Your task to perform on an android device: toggle wifi Image 0: 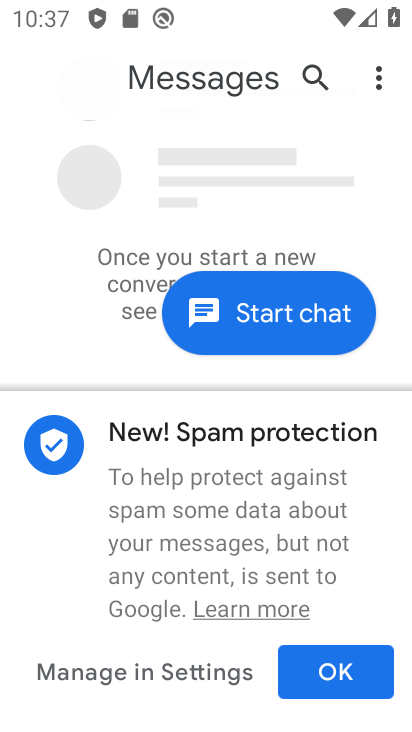
Step 0: press home button
Your task to perform on an android device: toggle wifi Image 1: 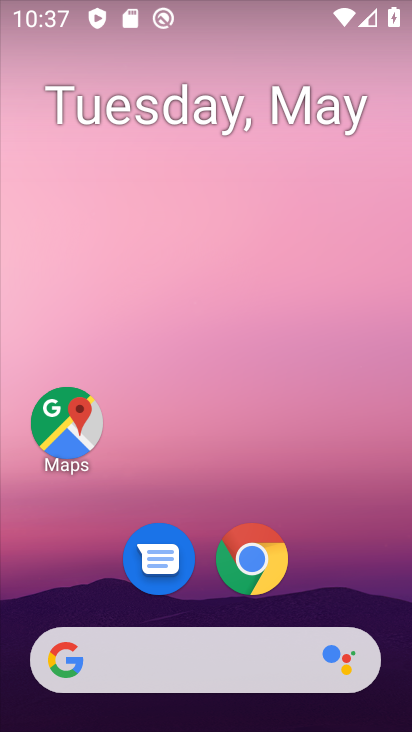
Step 1: drag from (358, 565) to (340, 205)
Your task to perform on an android device: toggle wifi Image 2: 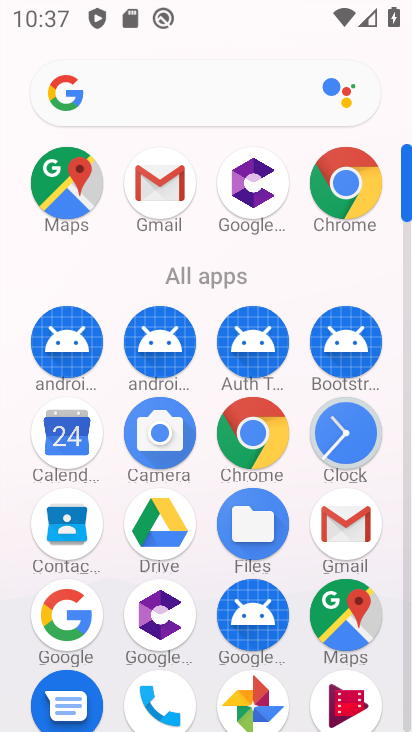
Step 2: drag from (126, 630) to (192, 290)
Your task to perform on an android device: toggle wifi Image 3: 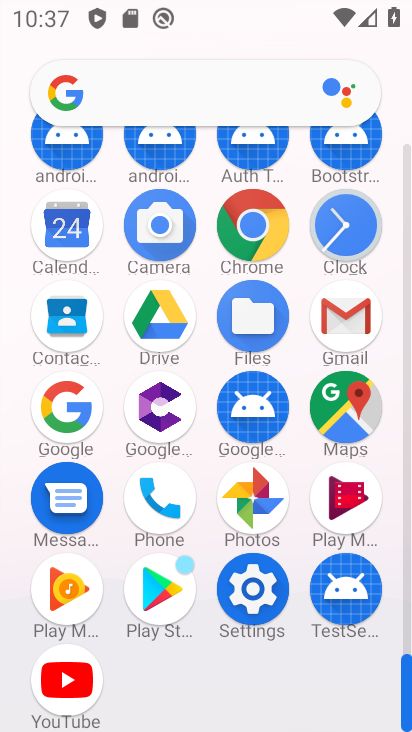
Step 3: click (250, 593)
Your task to perform on an android device: toggle wifi Image 4: 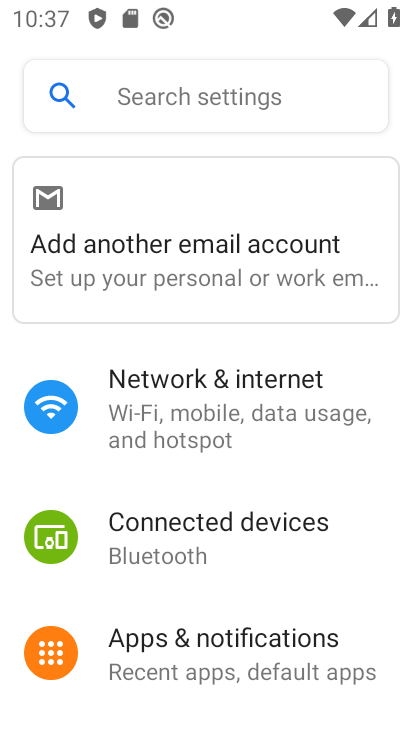
Step 4: click (207, 408)
Your task to perform on an android device: toggle wifi Image 5: 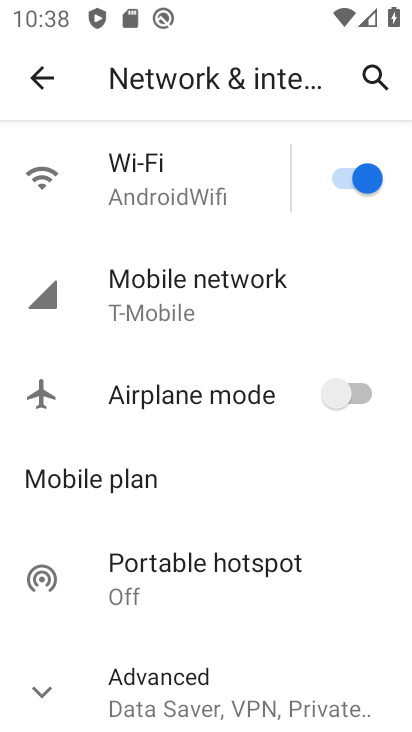
Step 5: click (186, 190)
Your task to perform on an android device: toggle wifi Image 6: 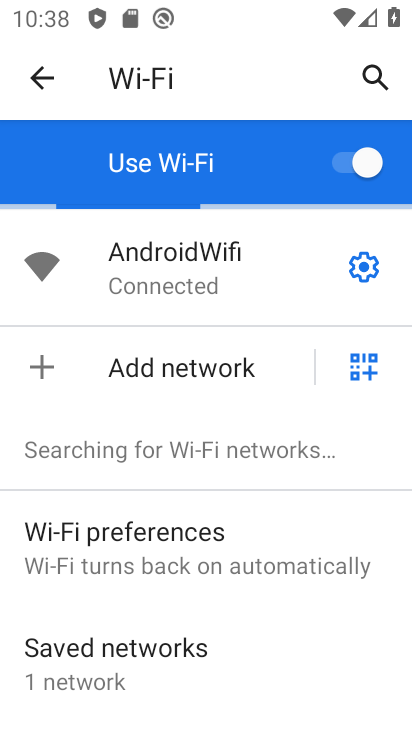
Step 6: click (355, 163)
Your task to perform on an android device: toggle wifi Image 7: 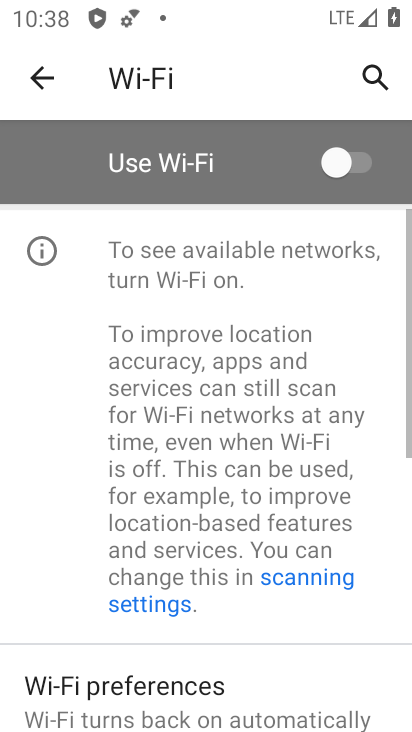
Step 7: task complete